Your task to perform on an android device: Open settings on Google Maps Image 0: 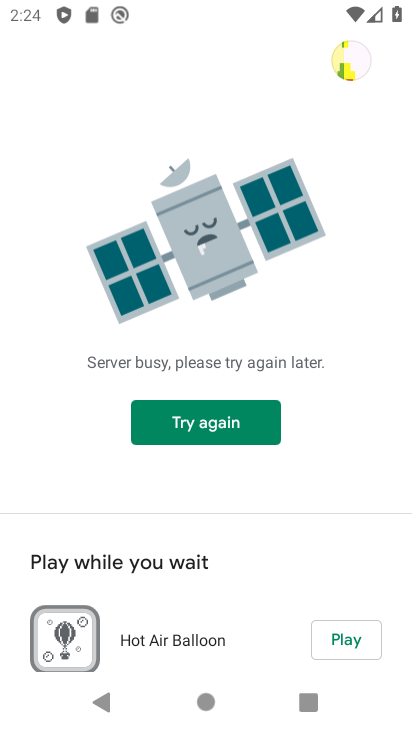
Step 0: press home button
Your task to perform on an android device: Open settings on Google Maps Image 1: 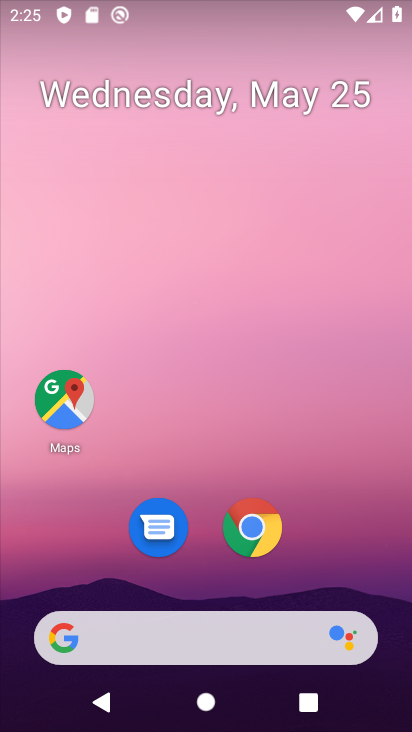
Step 1: click (59, 431)
Your task to perform on an android device: Open settings on Google Maps Image 2: 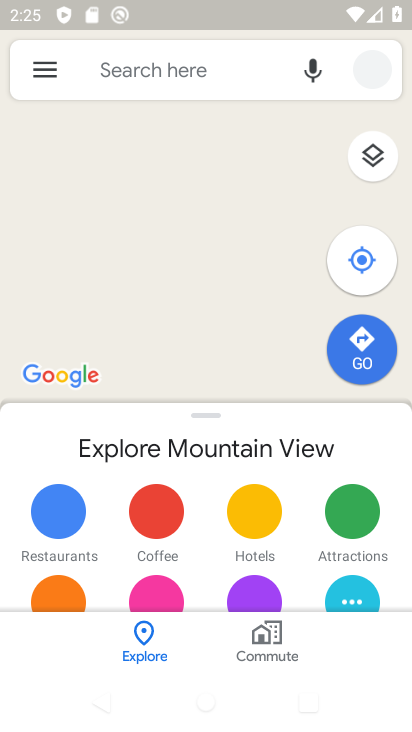
Step 2: task complete